Your task to perform on an android device: Check the news Image 0: 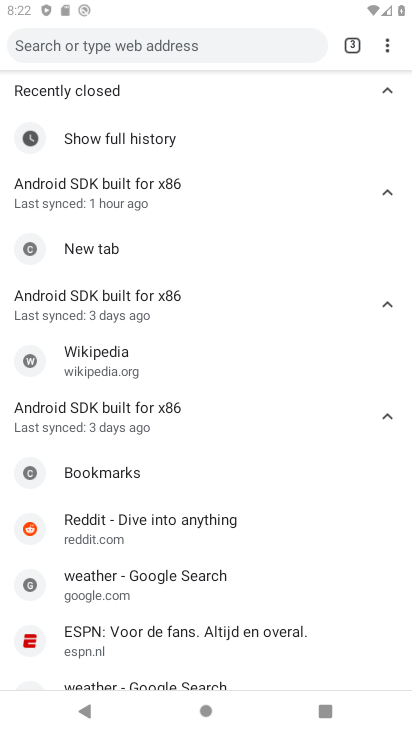
Step 0: click (100, 247)
Your task to perform on an android device: Check the news Image 1: 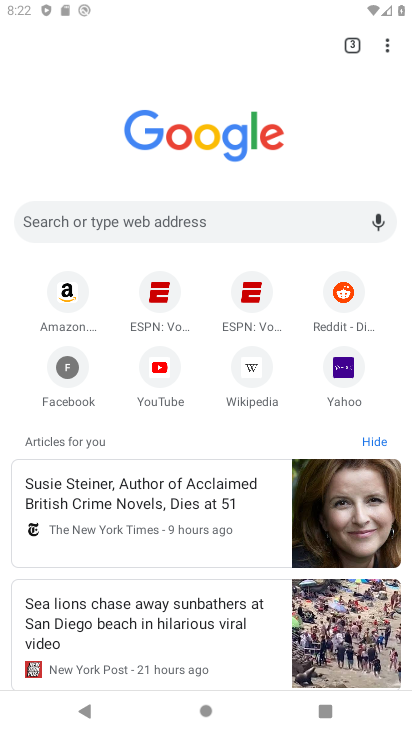
Step 1: click (235, 213)
Your task to perform on an android device: Check the news Image 2: 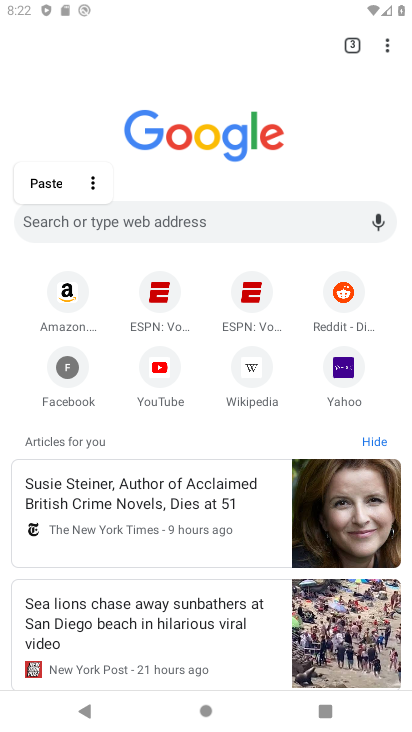
Step 2: type "news"
Your task to perform on an android device: Check the news Image 3: 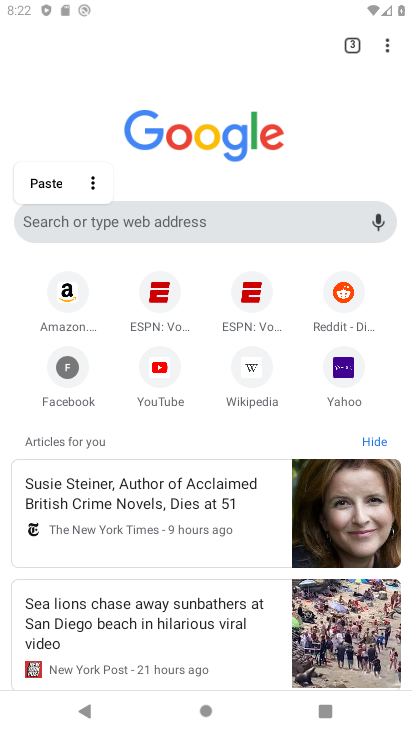
Step 3: click (280, 229)
Your task to perform on an android device: Check the news Image 4: 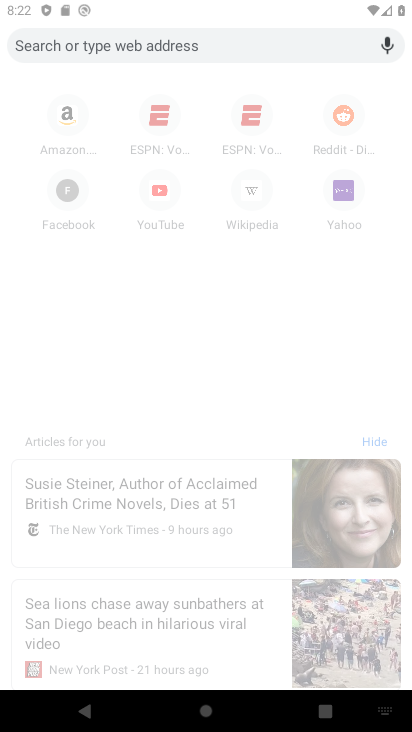
Step 4: type "news"
Your task to perform on an android device: Check the news Image 5: 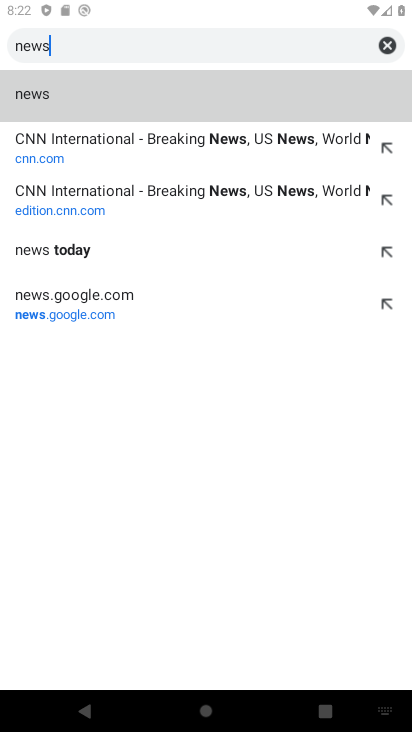
Step 5: click (156, 93)
Your task to perform on an android device: Check the news Image 6: 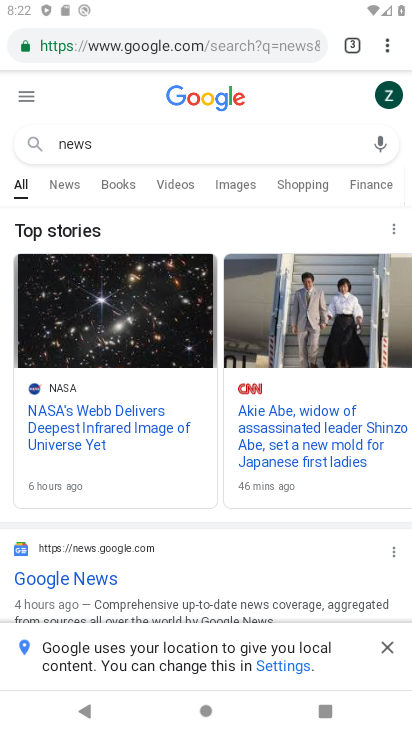
Step 6: task complete